Your task to perform on an android device: What's the weather going to be tomorrow? Image 0: 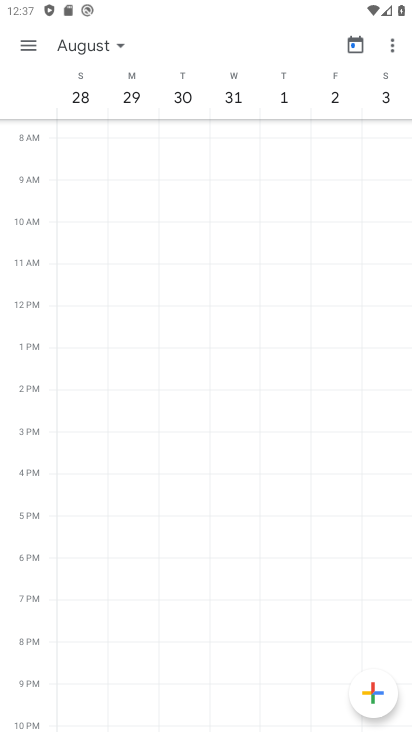
Step 0: press home button
Your task to perform on an android device: What's the weather going to be tomorrow? Image 1: 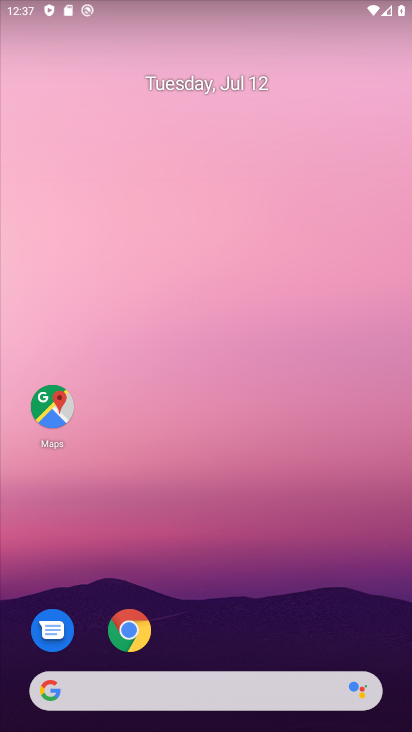
Step 1: task complete